Your task to perform on an android device: turn off data saver in the chrome app Image 0: 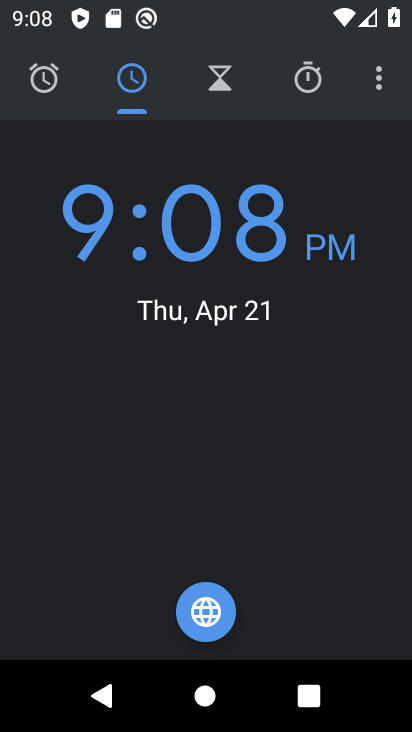
Step 0: press home button
Your task to perform on an android device: turn off data saver in the chrome app Image 1: 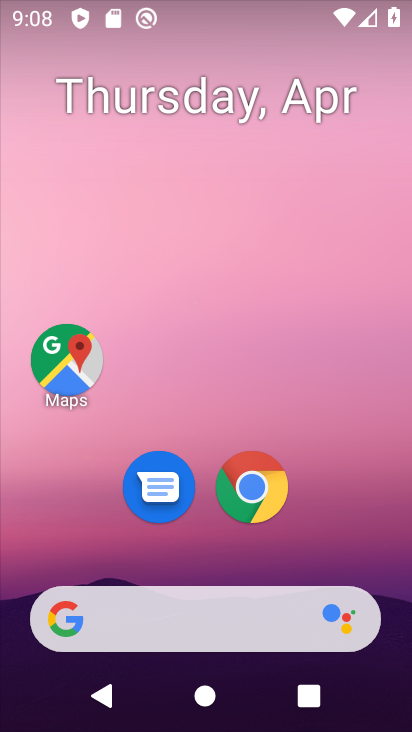
Step 1: drag from (341, 509) to (338, 98)
Your task to perform on an android device: turn off data saver in the chrome app Image 2: 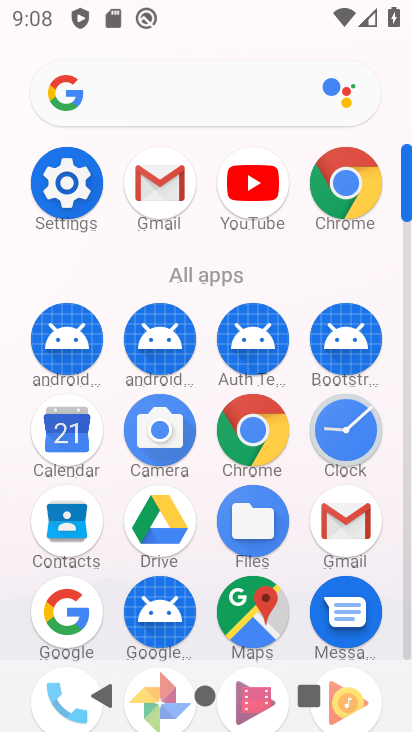
Step 2: click (271, 423)
Your task to perform on an android device: turn off data saver in the chrome app Image 3: 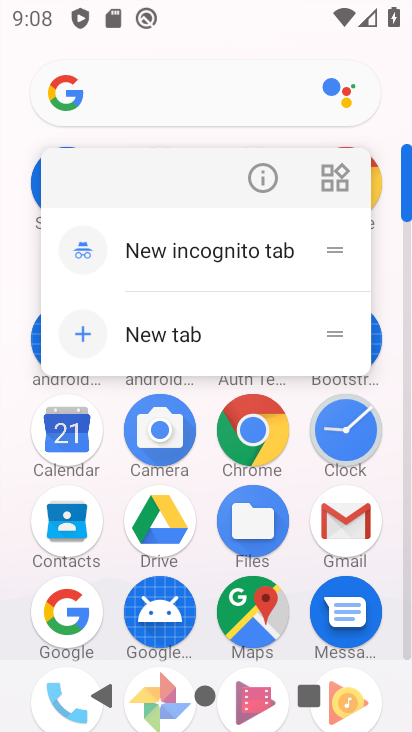
Step 3: click (271, 423)
Your task to perform on an android device: turn off data saver in the chrome app Image 4: 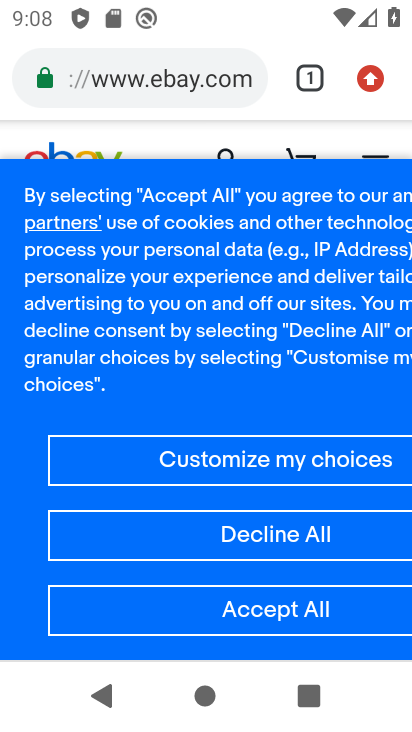
Step 4: click (367, 77)
Your task to perform on an android device: turn off data saver in the chrome app Image 5: 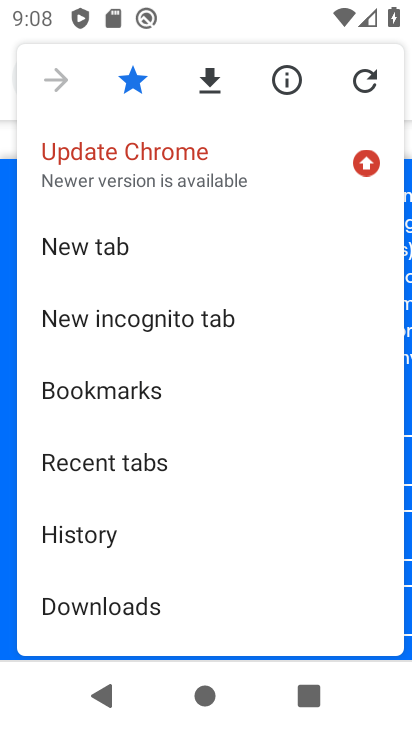
Step 5: drag from (251, 556) to (288, 364)
Your task to perform on an android device: turn off data saver in the chrome app Image 6: 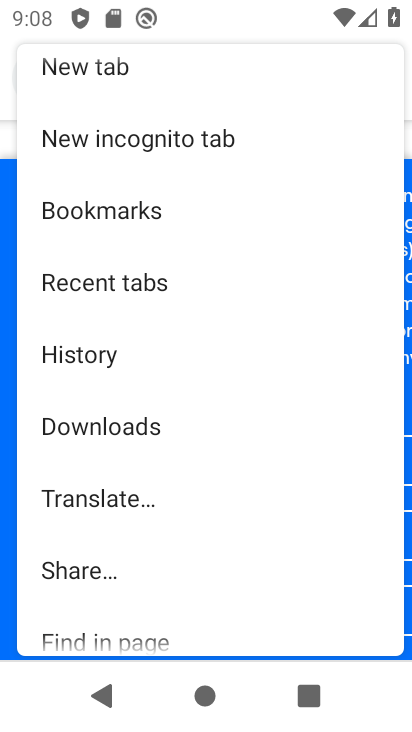
Step 6: drag from (333, 525) to (322, 324)
Your task to perform on an android device: turn off data saver in the chrome app Image 7: 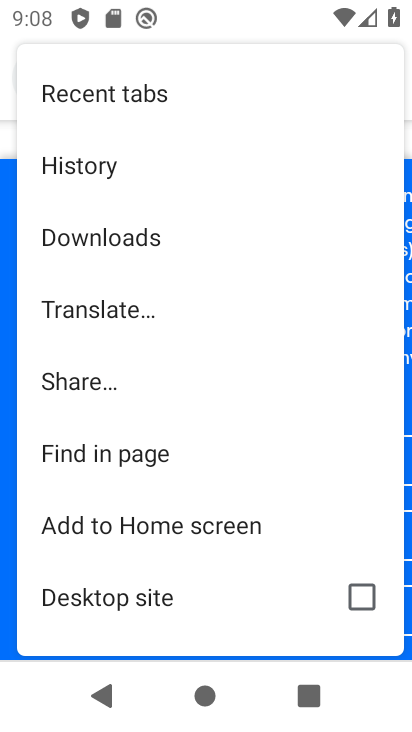
Step 7: drag from (270, 456) to (289, 250)
Your task to perform on an android device: turn off data saver in the chrome app Image 8: 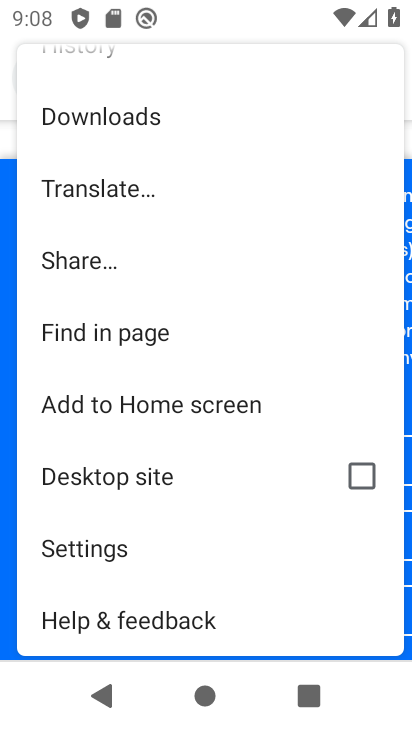
Step 8: click (116, 551)
Your task to perform on an android device: turn off data saver in the chrome app Image 9: 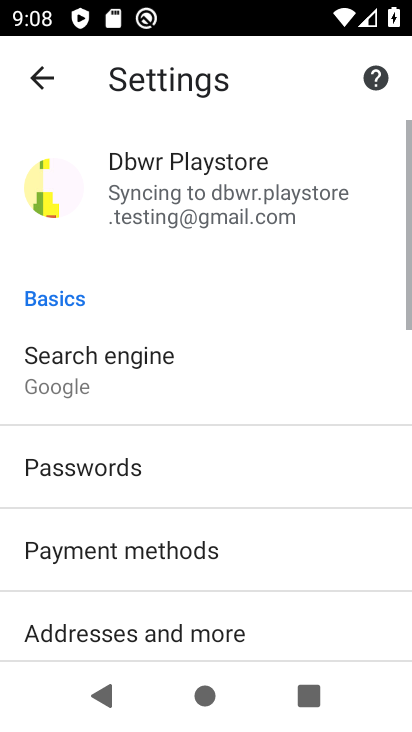
Step 9: drag from (279, 562) to (295, 299)
Your task to perform on an android device: turn off data saver in the chrome app Image 10: 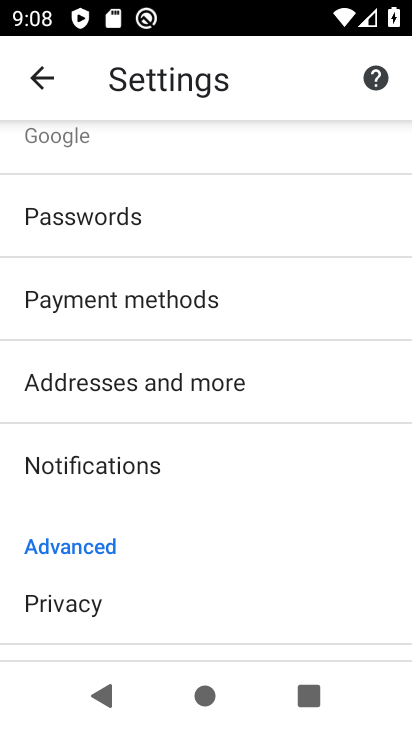
Step 10: drag from (293, 534) to (304, 304)
Your task to perform on an android device: turn off data saver in the chrome app Image 11: 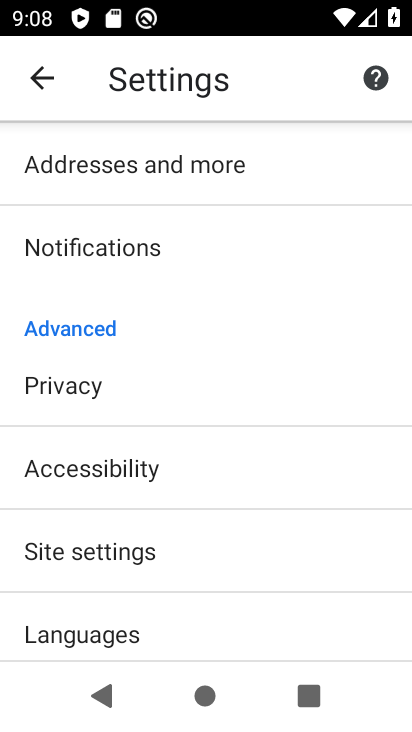
Step 11: drag from (283, 568) to (297, 380)
Your task to perform on an android device: turn off data saver in the chrome app Image 12: 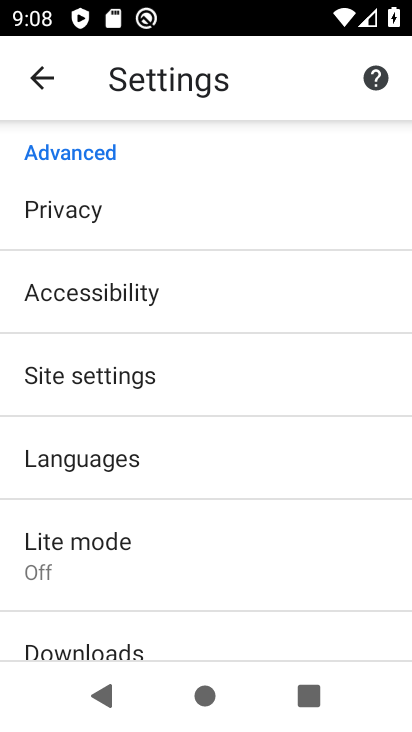
Step 12: click (269, 551)
Your task to perform on an android device: turn off data saver in the chrome app Image 13: 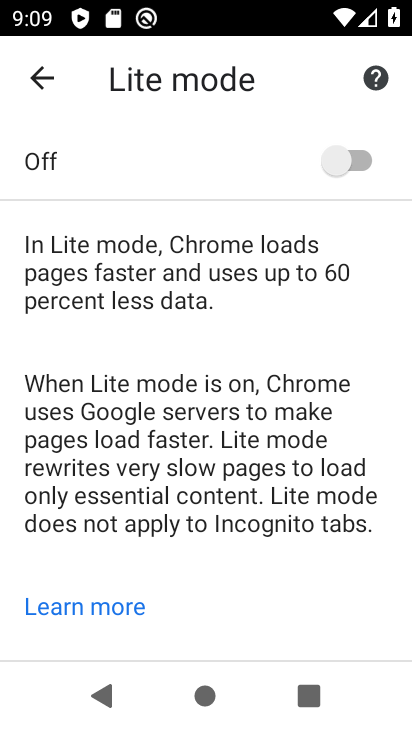
Step 13: task complete